Your task to perform on an android device: Open Google Chrome and open the bookmarks view Image 0: 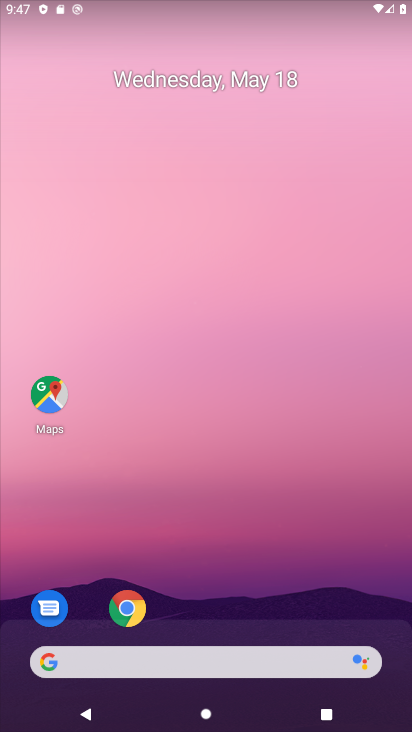
Step 0: click (134, 615)
Your task to perform on an android device: Open Google Chrome and open the bookmarks view Image 1: 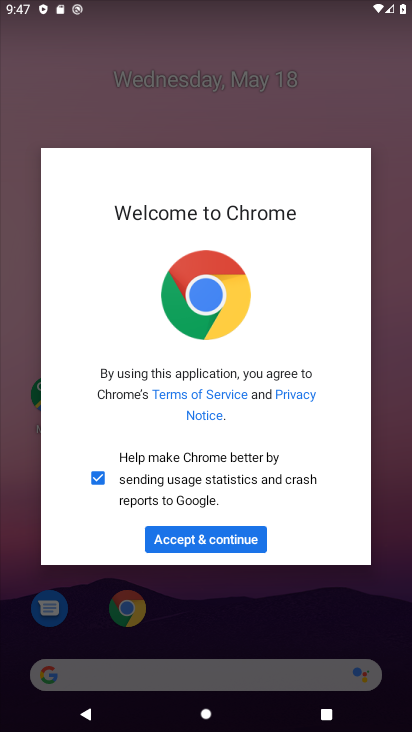
Step 1: click (215, 541)
Your task to perform on an android device: Open Google Chrome and open the bookmarks view Image 2: 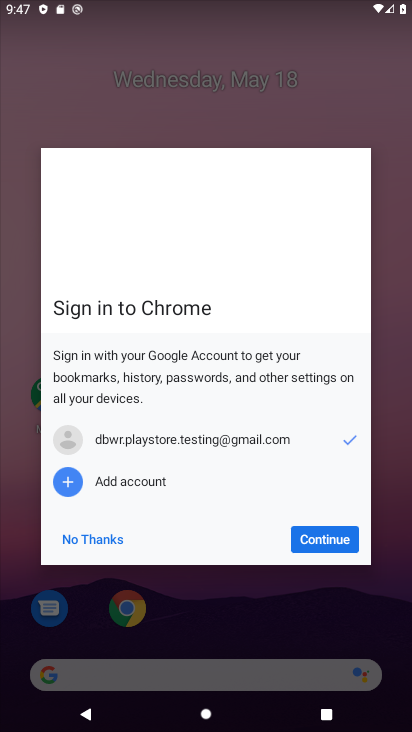
Step 2: click (348, 541)
Your task to perform on an android device: Open Google Chrome and open the bookmarks view Image 3: 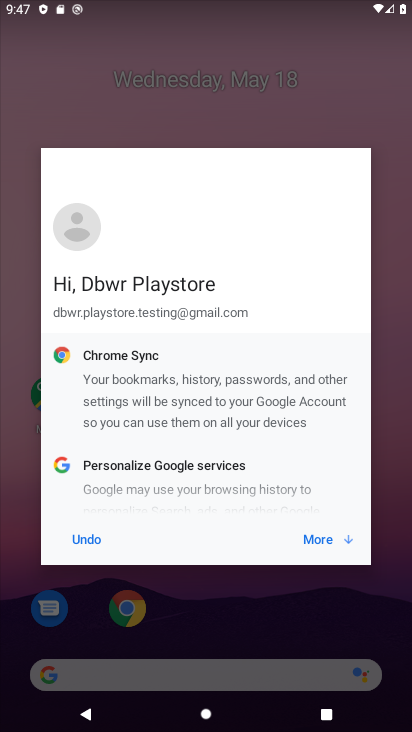
Step 3: click (348, 541)
Your task to perform on an android device: Open Google Chrome and open the bookmarks view Image 4: 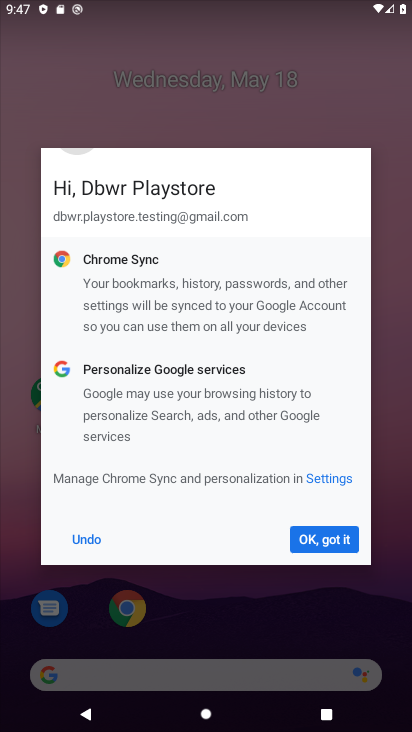
Step 4: click (349, 545)
Your task to perform on an android device: Open Google Chrome and open the bookmarks view Image 5: 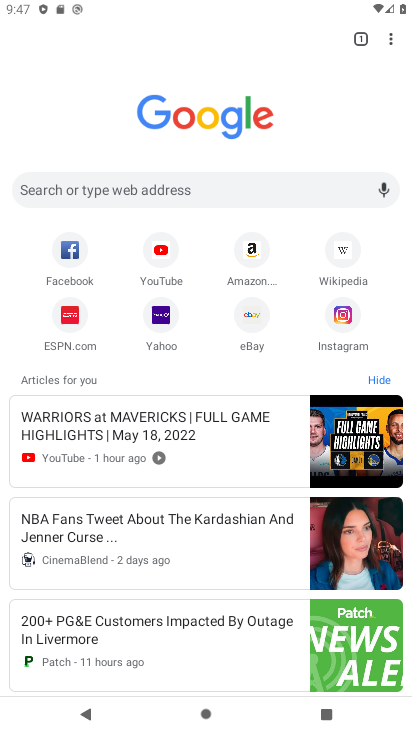
Step 5: click (398, 45)
Your task to perform on an android device: Open Google Chrome and open the bookmarks view Image 6: 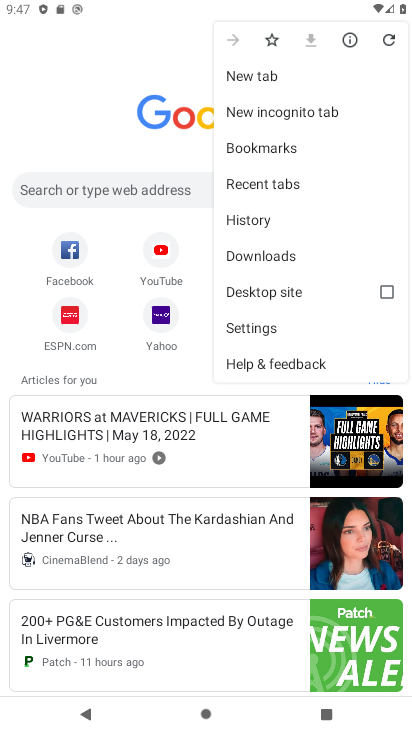
Step 6: click (275, 144)
Your task to perform on an android device: Open Google Chrome and open the bookmarks view Image 7: 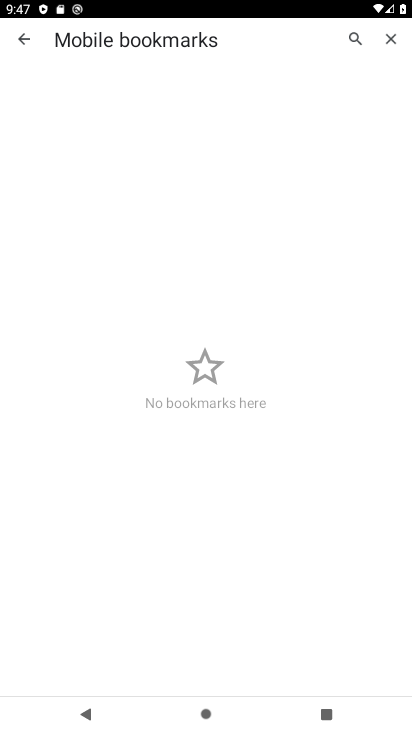
Step 7: task complete